Your task to perform on an android device: find snoozed emails in the gmail app Image 0: 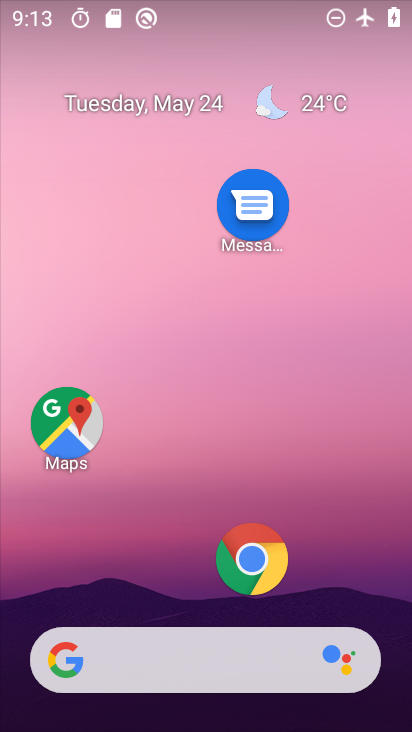
Step 0: drag from (202, 606) to (168, 240)
Your task to perform on an android device: find snoozed emails in the gmail app Image 1: 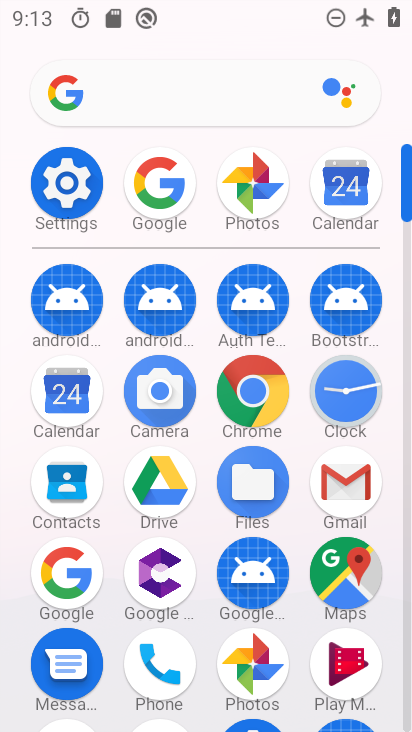
Step 1: click (354, 501)
Your task to perform on an android device: find snoozed emails in the gmail app Image 2: 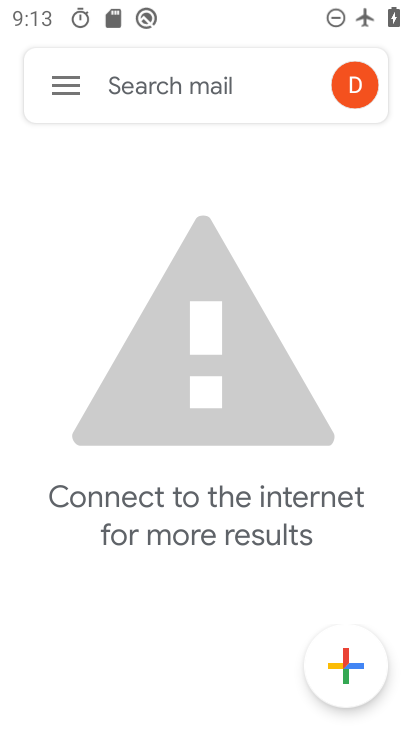
Step 2: click (80, 94)
Your task to perform on an android device: find snoozed emails in the gmail app Image 3: 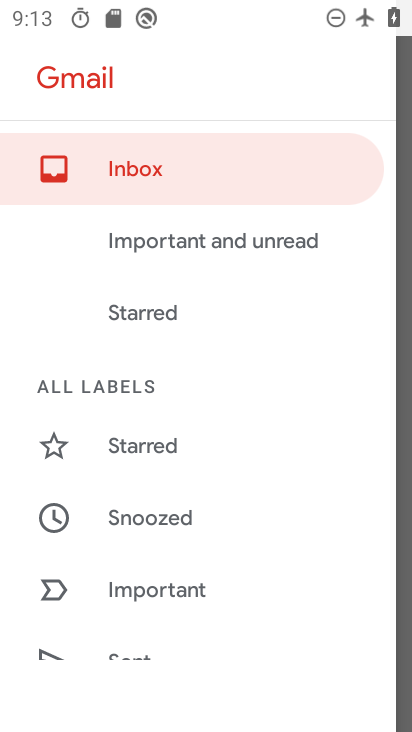
Step 3: click (141, 504)
Your task to perform on an android device: find snoozed emails in the gmail app Image 4: 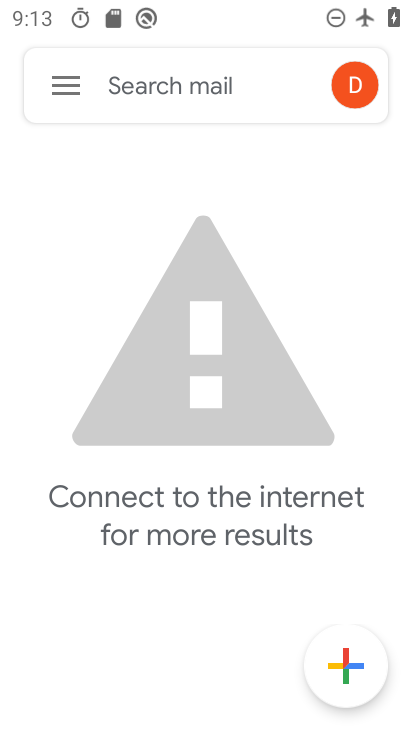
Step 4: click (65, 92)
Your task to perform on an android device: find snoozed emails in the gmail app Image 5: 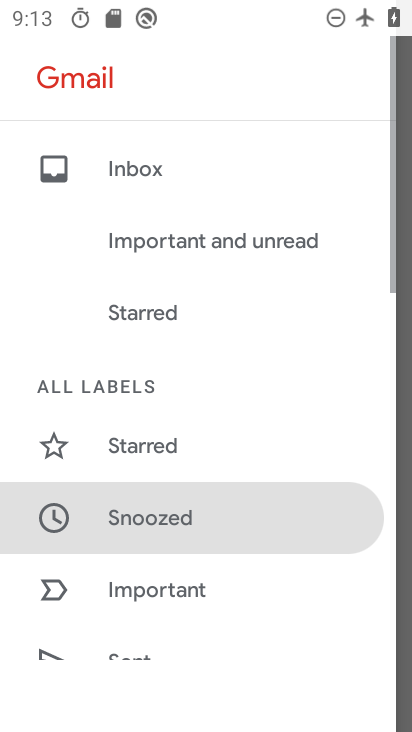
Step 5: click (243, 508)
Your task to perform on an android device: find snoozed emails in the gmail app Image 6: 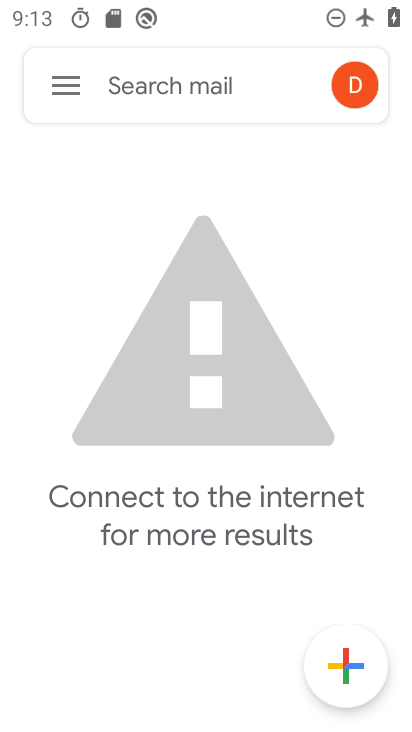
Step 6: task complete